Your task to perform on an android device: What's the weather today? Image 0: 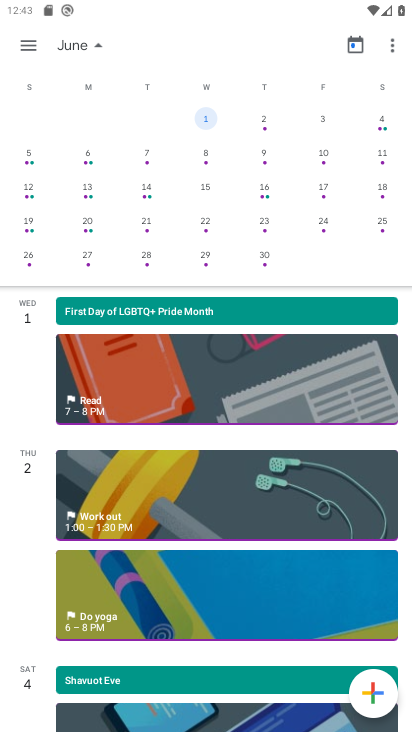
Step 0: press home button
Your task to perform on an android device: What's the weather today? Image 1: 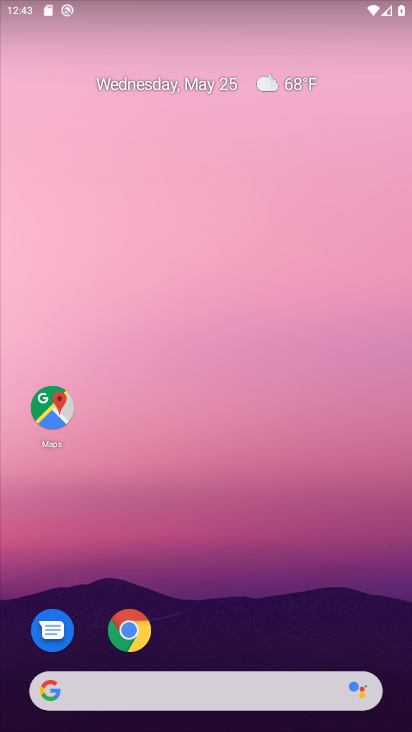
Step 1: drag from (232, 645) to (236, 199)
Your task to perform on an android device: What's the weather today? Image 2: 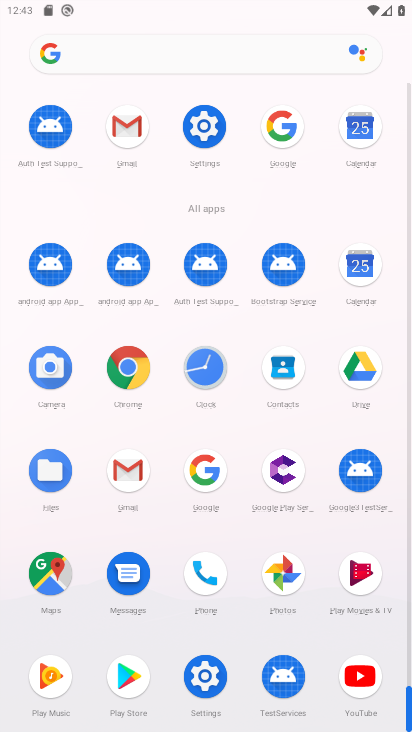
Step 2: click (185, 464)
Your task to perform on an android device: What's the weather today? Image 3: 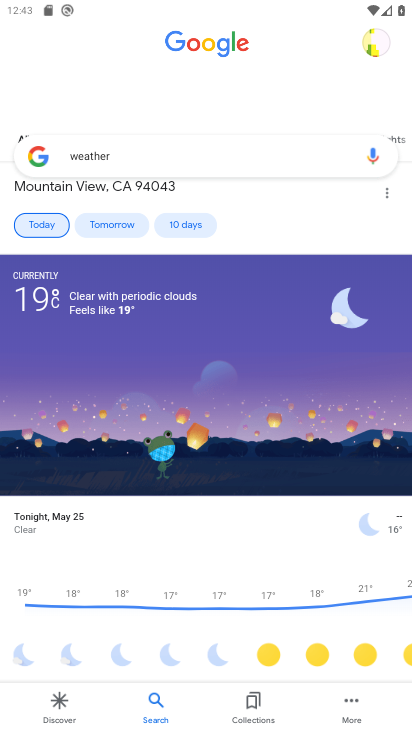
Step 3: task complete